Your task to perform on an android device: set default search engine in the chrome app Image 0: 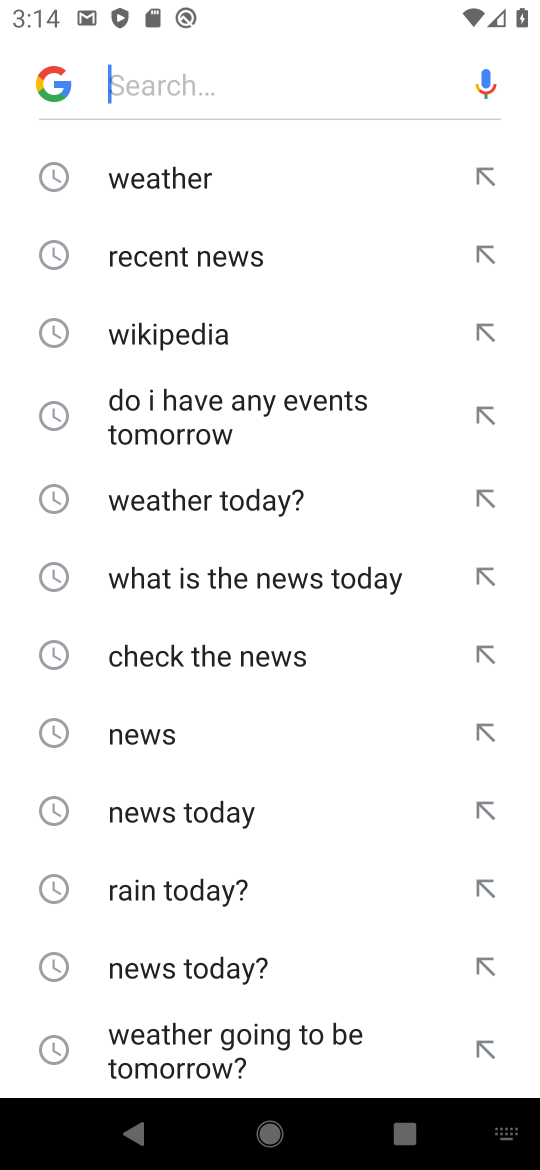
Step 0: press home button
Your task to perform on an android device: set default search engine in the chrome app Image 1: 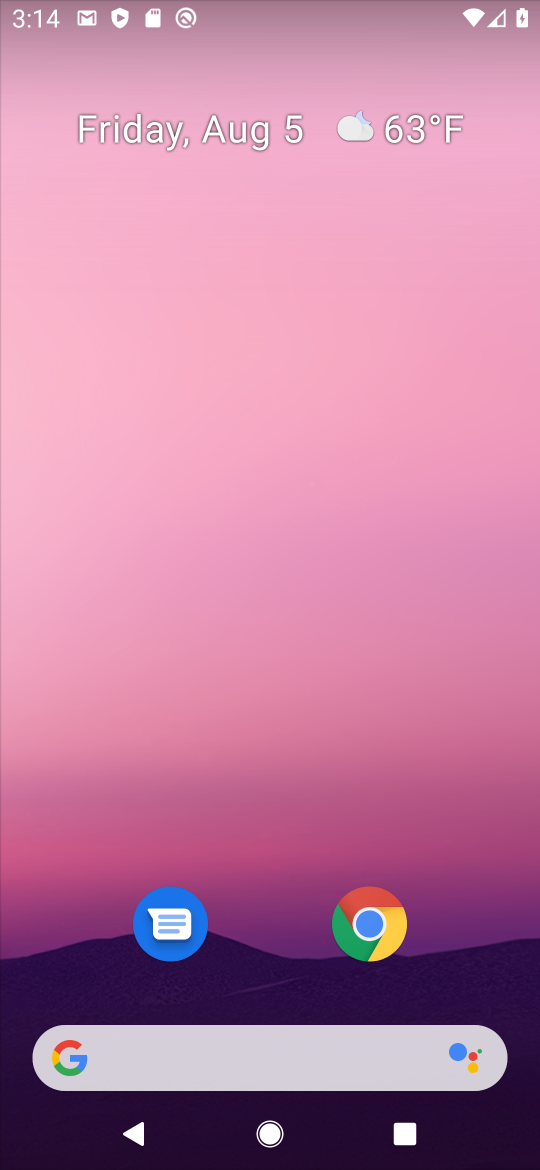
Step 1: drag from (277, 832) to (319, 76)
Your task to perform on an android device: set default search engine in the chrome app Image 2: 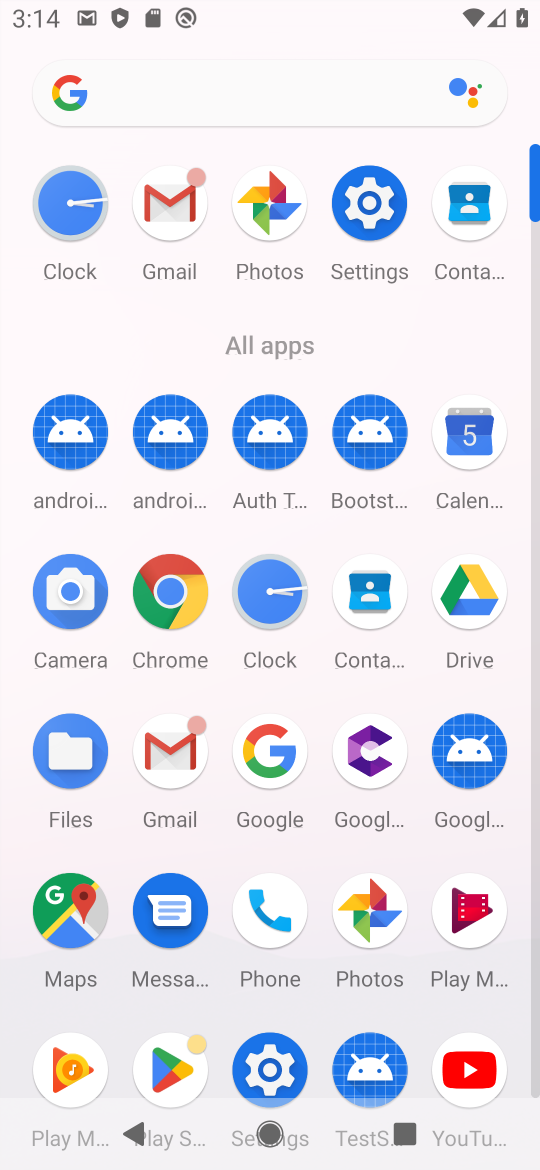
Step 2: click (168, 612)
Your task to perform on an android device: set default search engine in the chrome app Image 3: 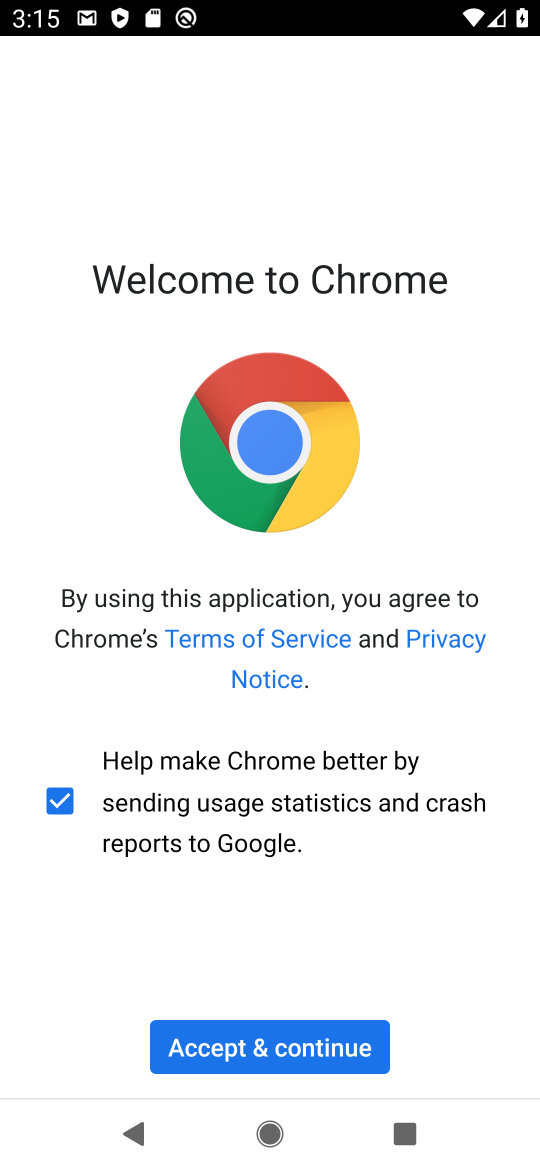
Step 3: click (287, 1050)
Your task to perform on an android device: set default search engine in the chrome app Image 4: 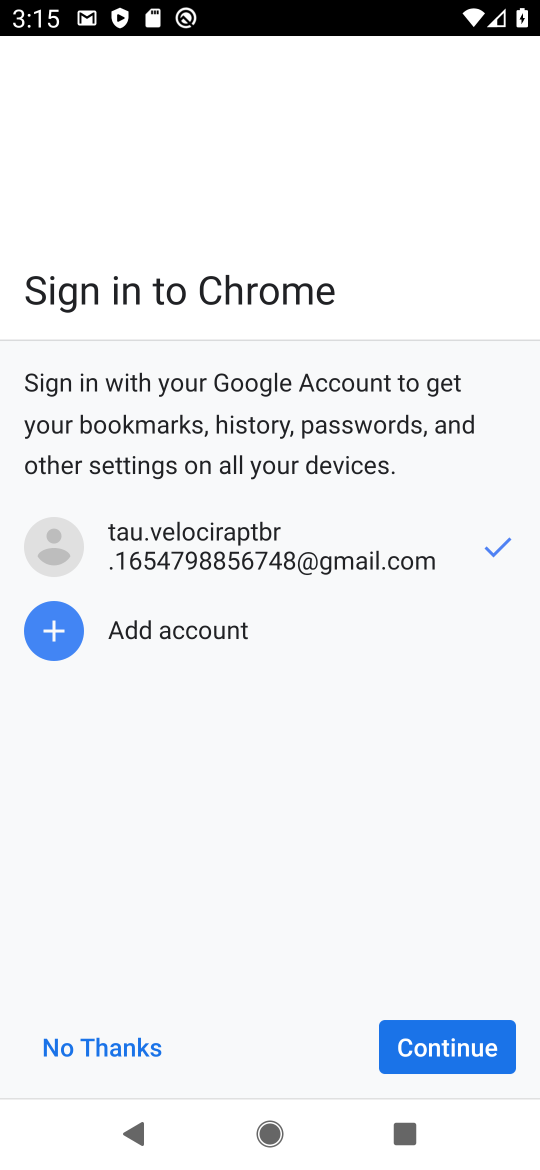
Step 4: click (448, 1049)
Your task to perform on an android device: set default search engine in the chrome app Image 5: 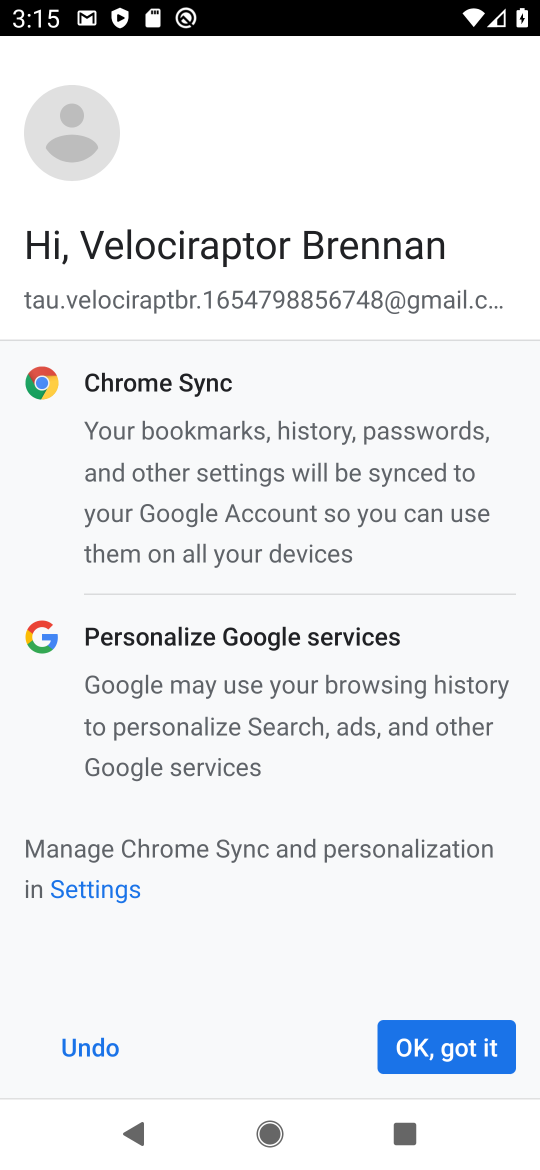
Step 5: click (485, 1039)
Your task to perform on an android device: set default search engine in the chrome app Image 6: 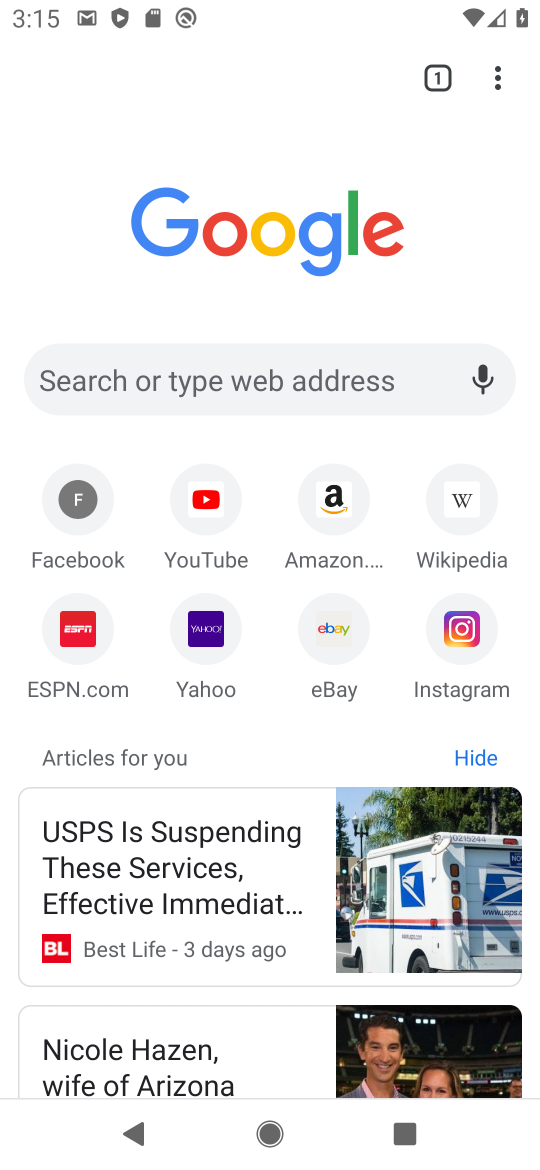
Step 6: click (497, 79)
Your task to perform on an android device: set default search engine in the chrome app Image 7: 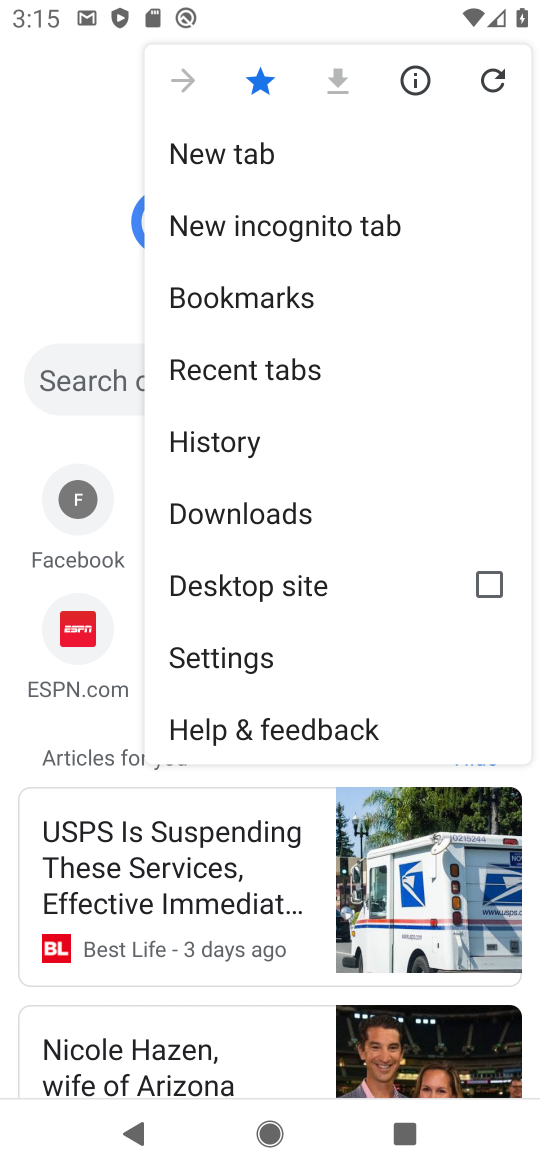
Step 7: click (297, 666)
Your task to perform on an android device: set default search engine in the chrome app Image 8: 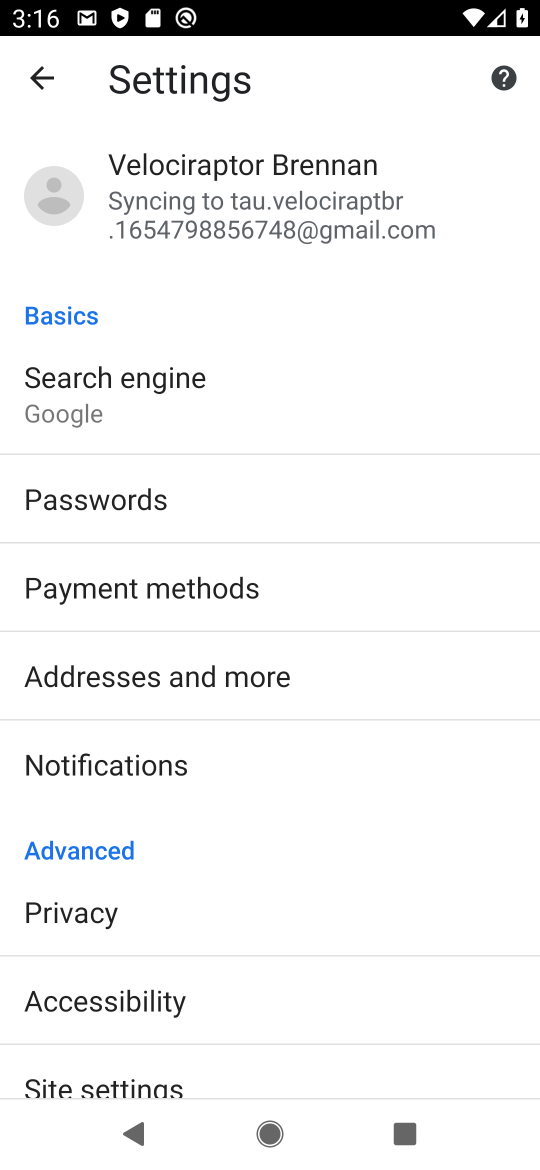
Step 8: click (185, 408)
Your task to perform on an android device: set default search engine in the chrome app Image 9: 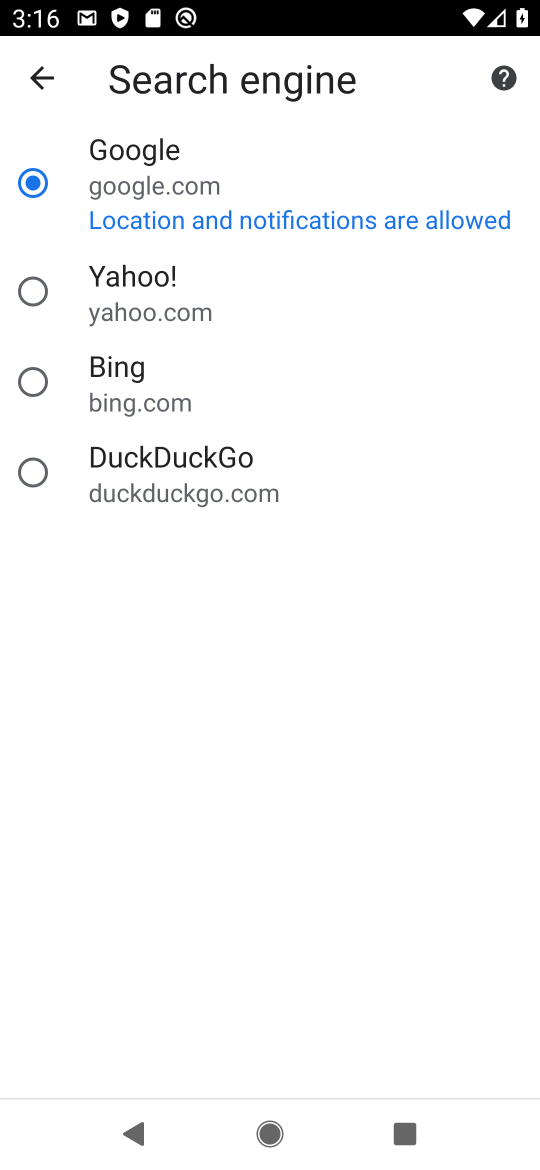
Step 9: click (283, 228)
Your task to perform on an android device: set default search engine in the chrome app Image 10: 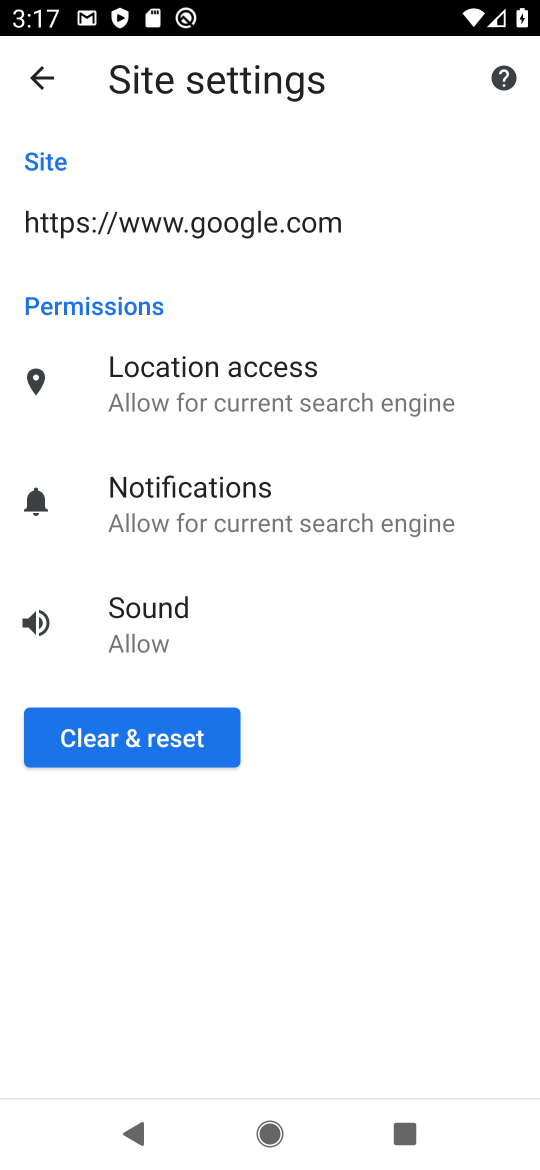
Step 10: click (176, 740)
Your task to perform on an android device: set default search engine in the chrome app Image 11: 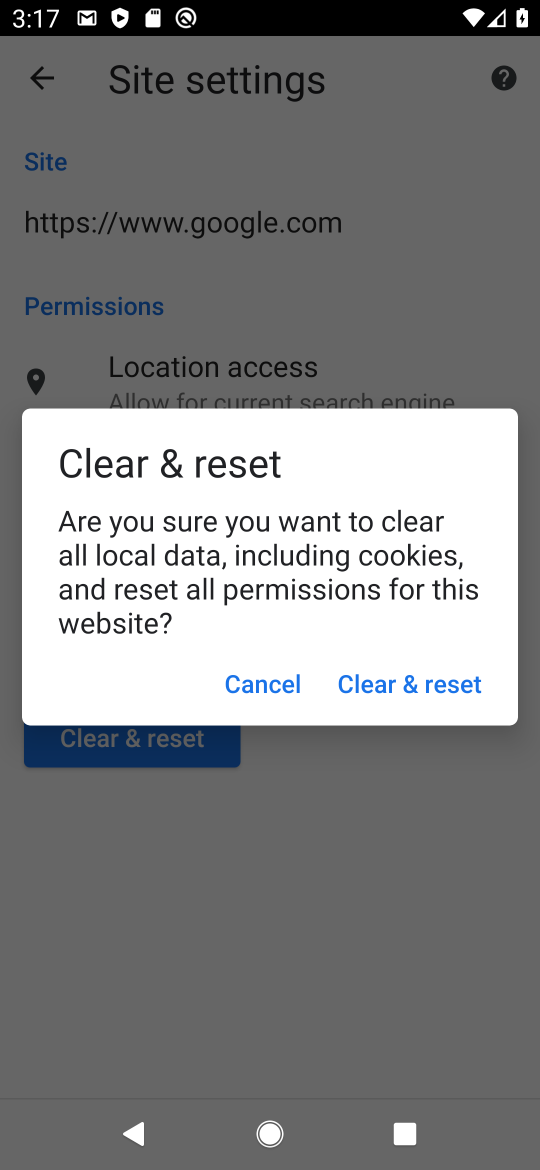
Step 11: click (400, 681)
Your task to perform on an android device: set default search engine in the chrome app Image 12: 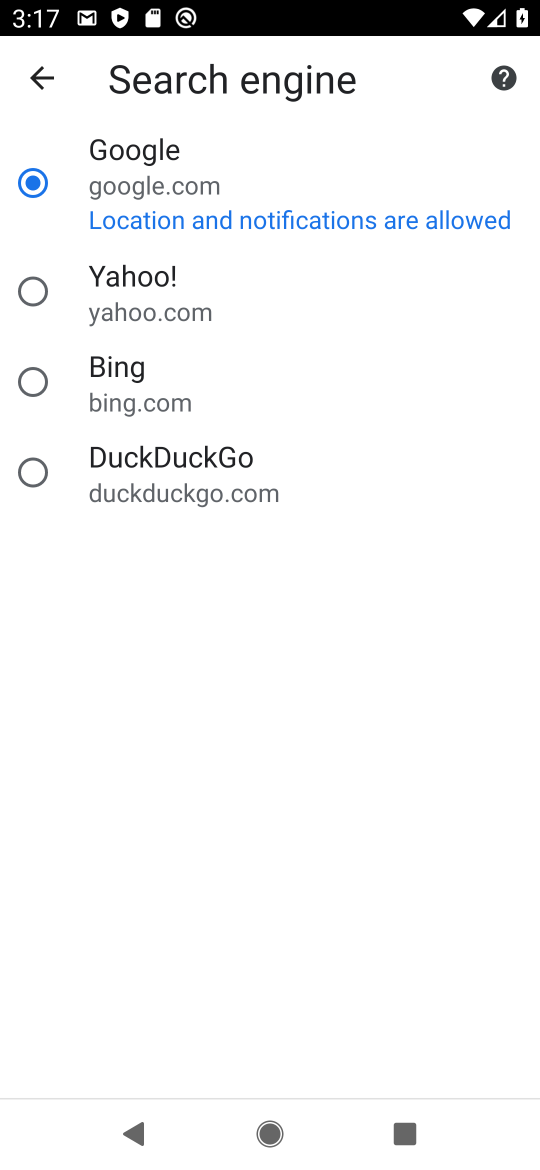
Step 12: task complete